Your task to perform on an android device: Toggle the flashlight Image 0: 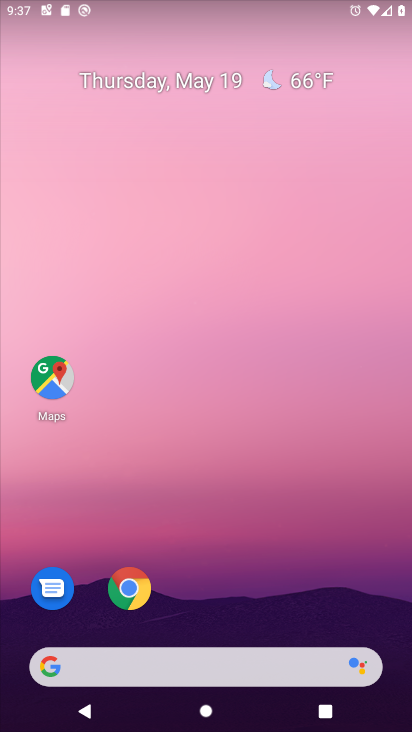
Step 0: drag from (247, 21) to (233, 443)
Your task to perform on an android device: Toggle the flashlight Image 1: 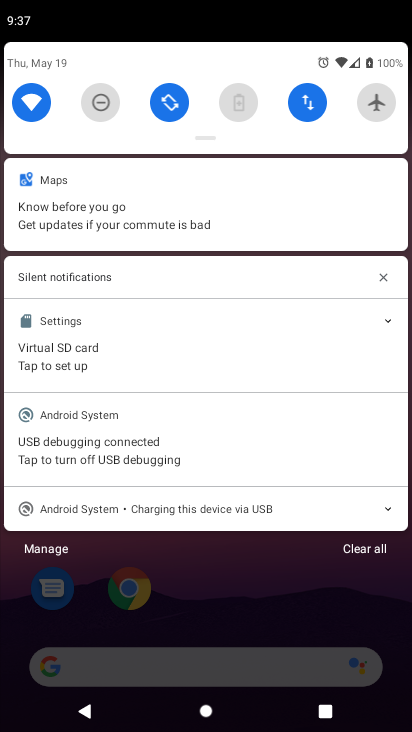
Step 1: drag from (207, 56) to (198, 324)
Your task to perform on an android device: Toggle the flashlight Image 2: 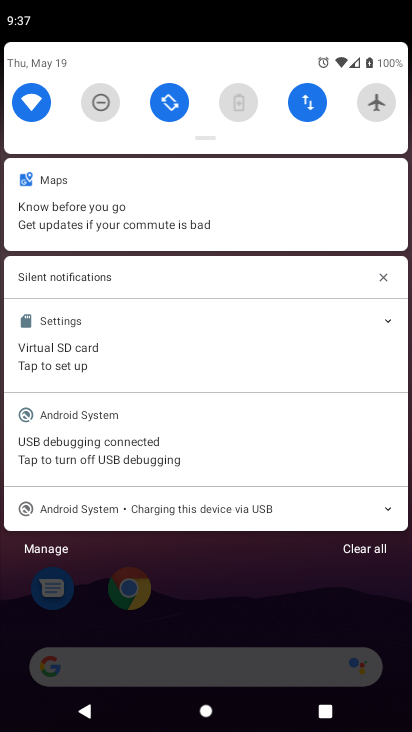
Step 2: drag from (207, 78) to (209, 365)
Your task to perform on an android device: Toggle the flashlight Image 3: 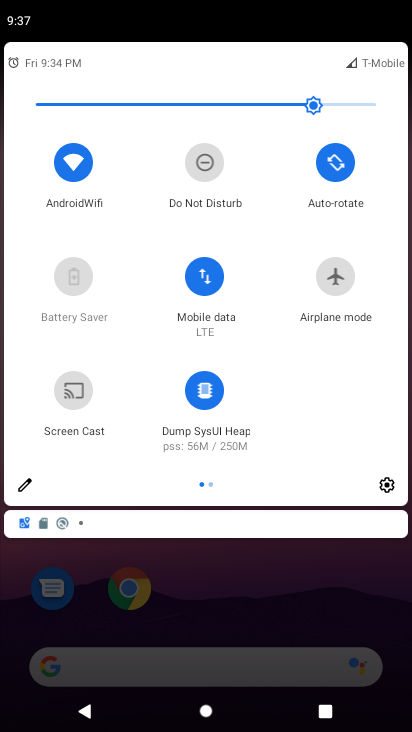
Step 3: click (29, 481)
Your task to perform on an android device: Toggle the flashlight Image 4: 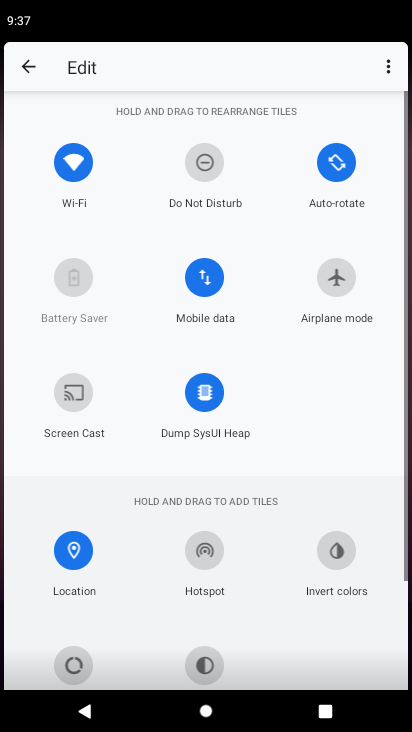
Step 4: task complete